Your task to perform on an android device: open app "Paramount+ | Peak Streaming" (install if not already installed) Image 0: 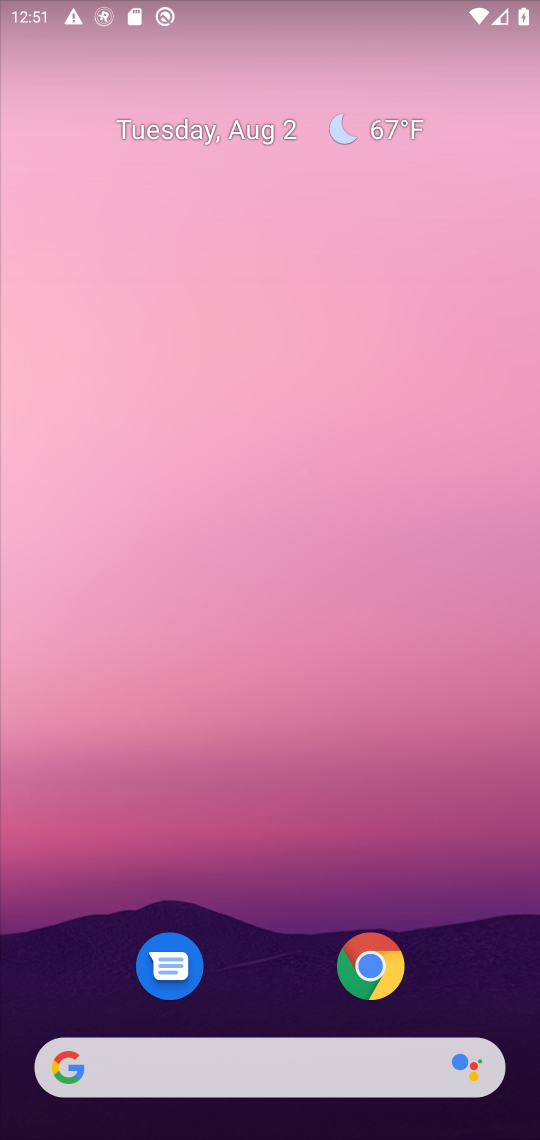
Step 0: press home button
Your task to perform on an android device: open app "Paramount+ | Peak Streaming" (install if not already installed) Image 1: 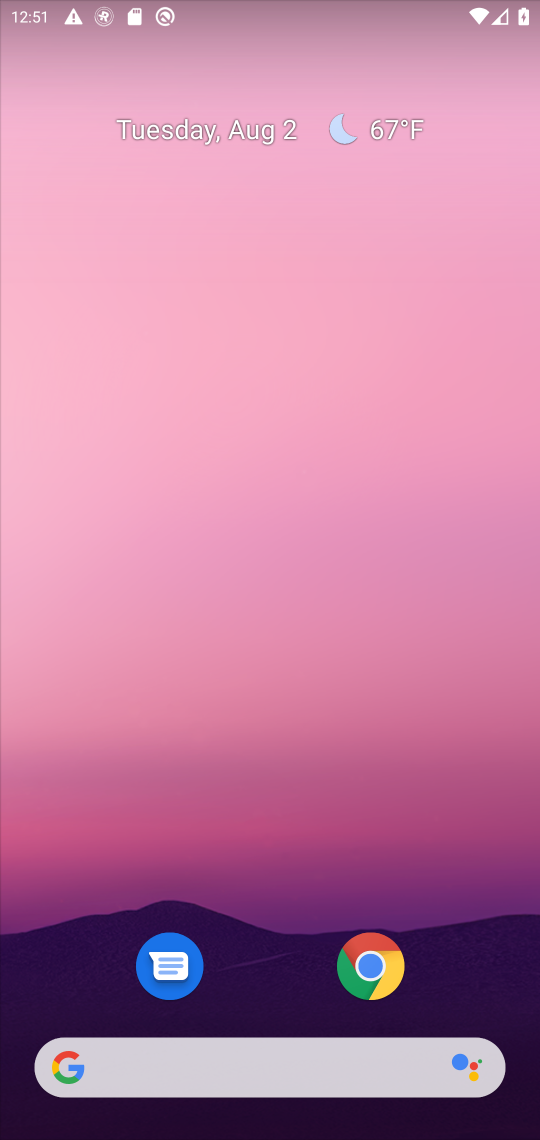
Step 1: drag from (254, 927) to (249, 50)
Your task to perform on an android device: open app "Paramount+ | Peak Streaming" (install if not already installed) Image 2: 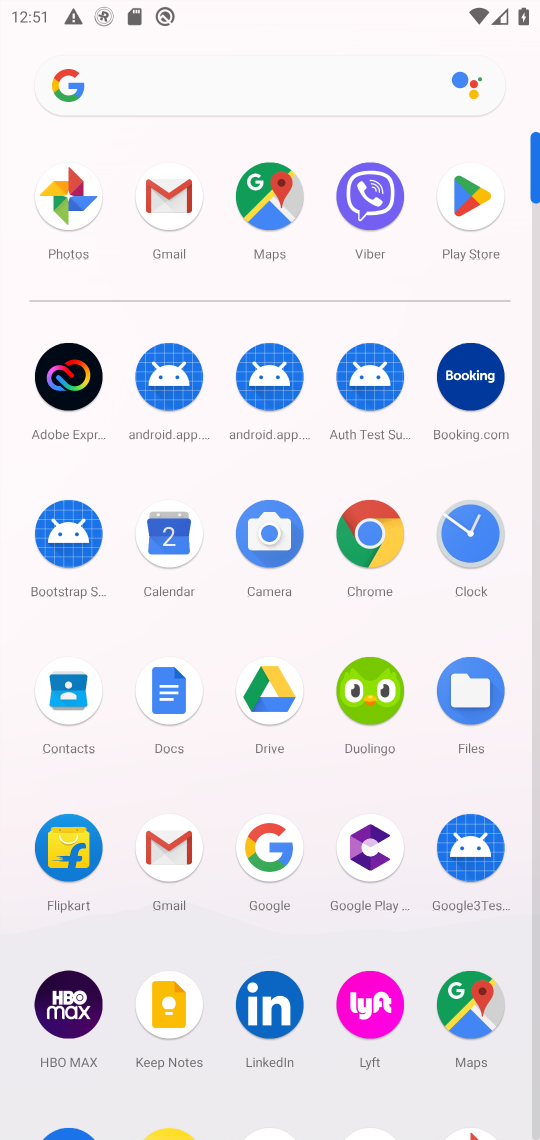
Step 2: click (482, 202)
Your task to perform on an android device: open app "Paramount+ | Peak Streaming" (install if not already installed) Image 3: 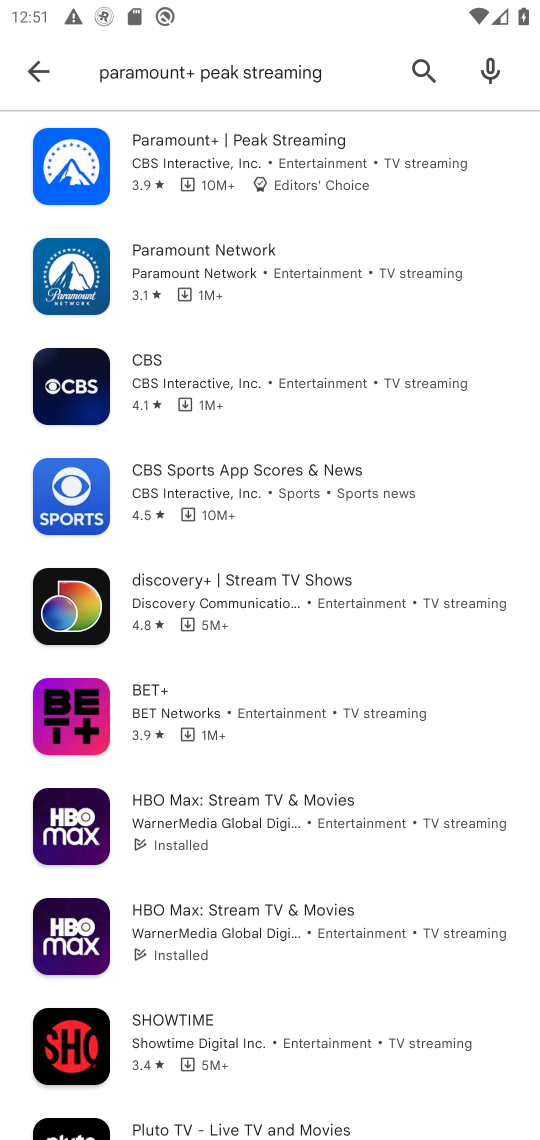
Step 3: click (423, 66)
Your task to perform on an android device: open app "Paramount+ | Peak Streaming" (install if not already installed) Image 4: 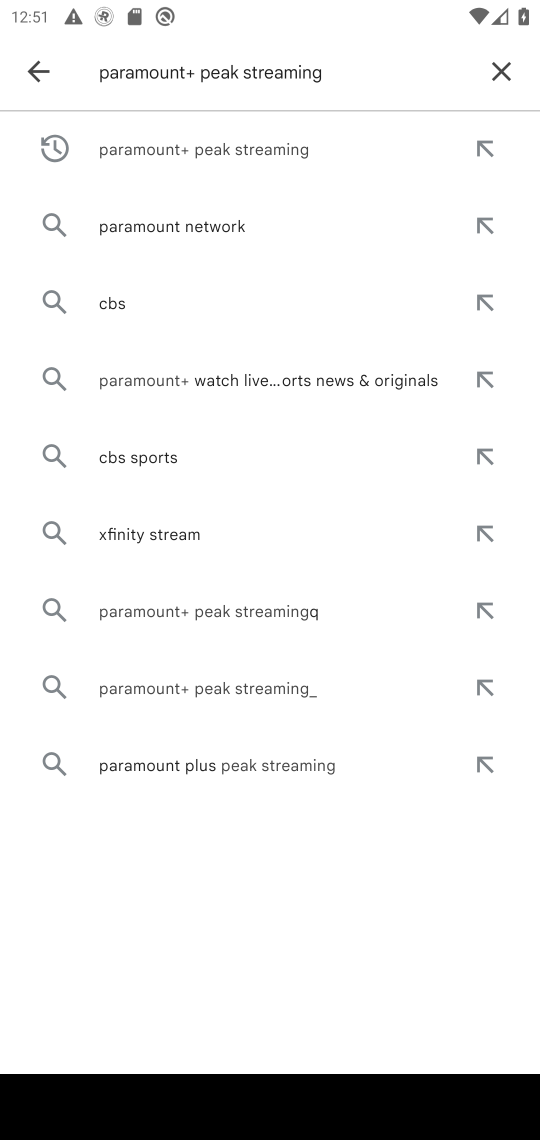
Step 4: click (504, 72)
Your task to perform on an android device: open app "Paramount+ | Peak Streaming" (install if not already installed) Image 5: 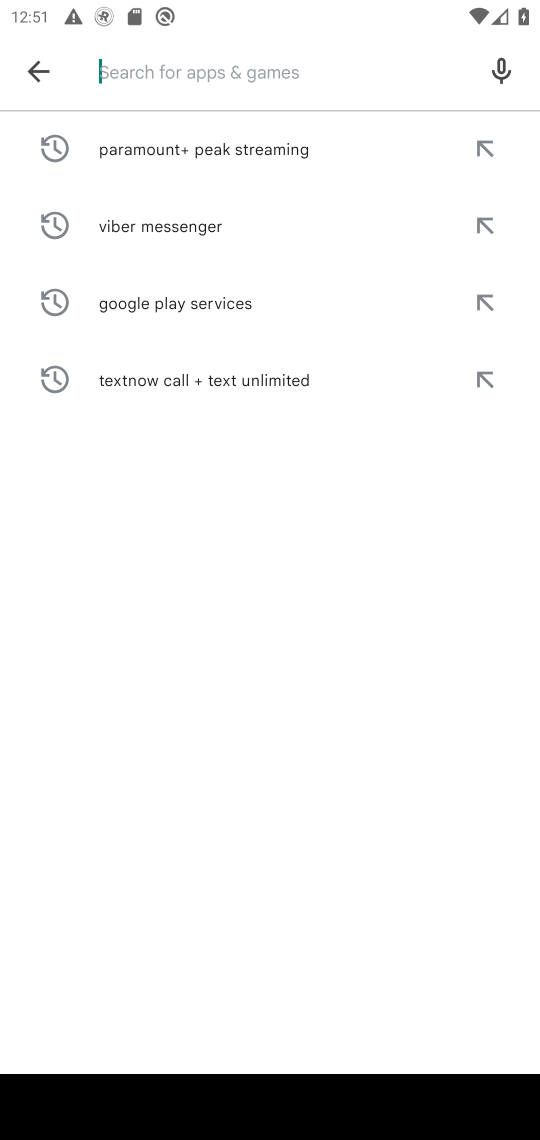
Step 5: type "Paramount+ | Peak Streaming"
Your task to perform on an android device: open app "Paramount+ | Peak Streaming" (install if not already installed) Image 6: 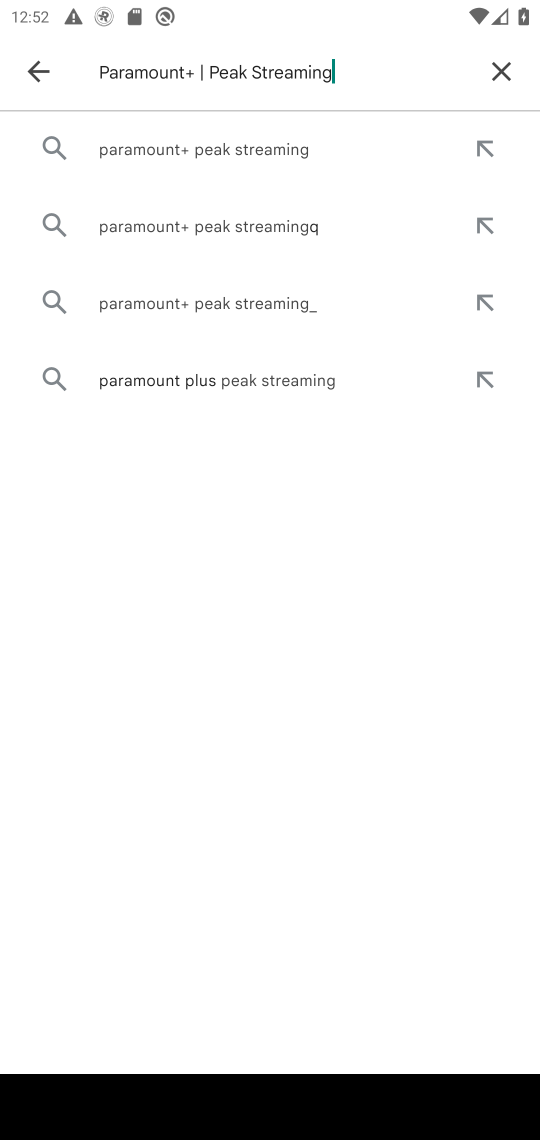
Step 6: click (258, 143)
Your task to perform on an android device: open app "Paramount+ | Peak Streaming" (install if not already installed) Image 7: 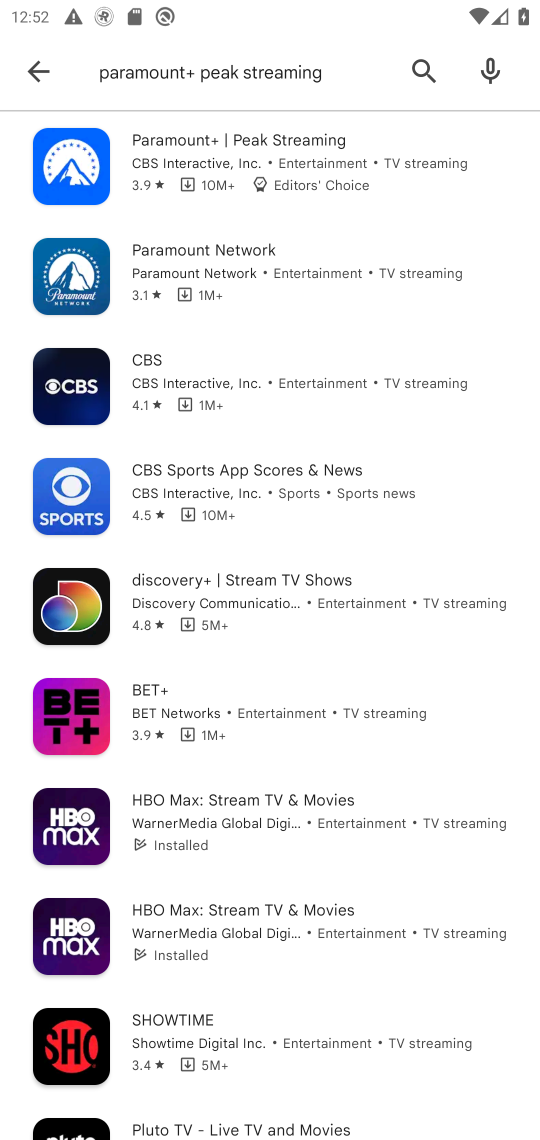
Step 7: task complete